Your task to perform on an android device: Search for logitech g502 on target, select the first entry, add it to the cart, then select checkout. Image 0: 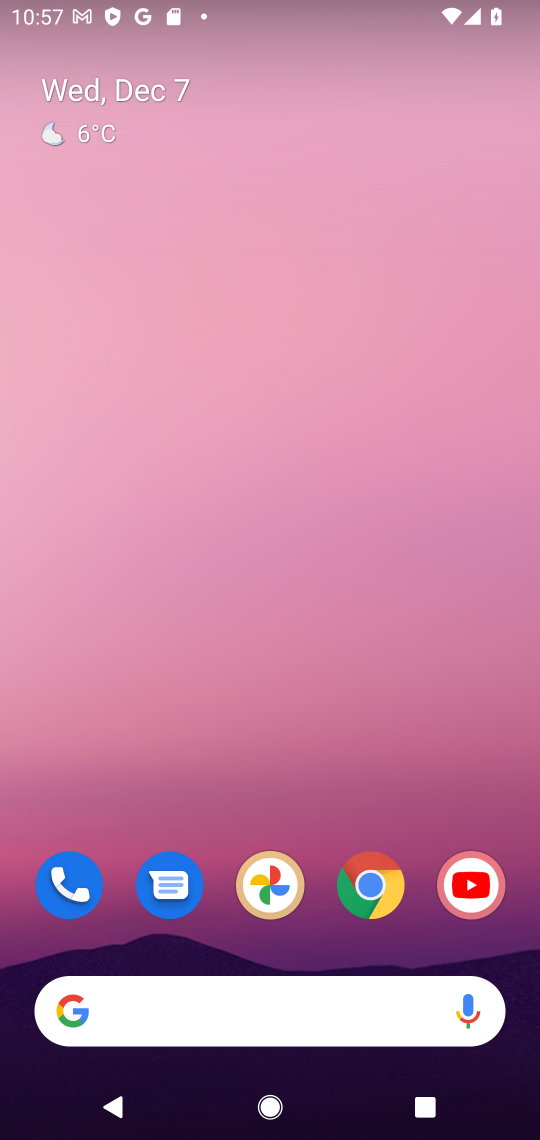
Step 0: click (370, 893)
Your task to perform on an android device: Search for logitech g502 on target, select the first entry, add it to the cart, then select checkout. Image 1: 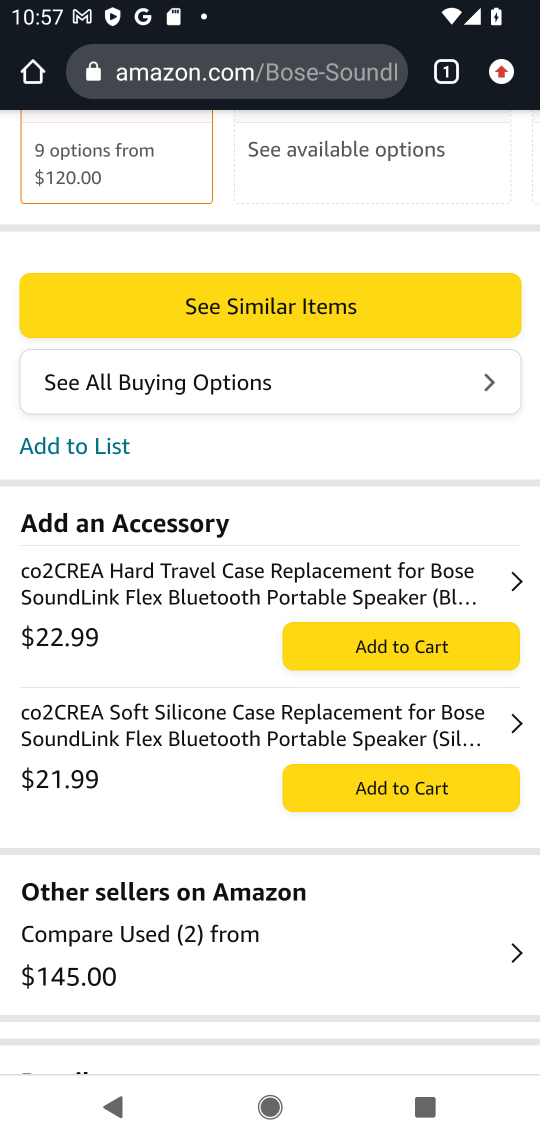
Step 1: click (243, 77)
Your task to perform on an android device: Search for logitech g502 on target, select the first entry, add it to the cart, then select checkout. Image 2: 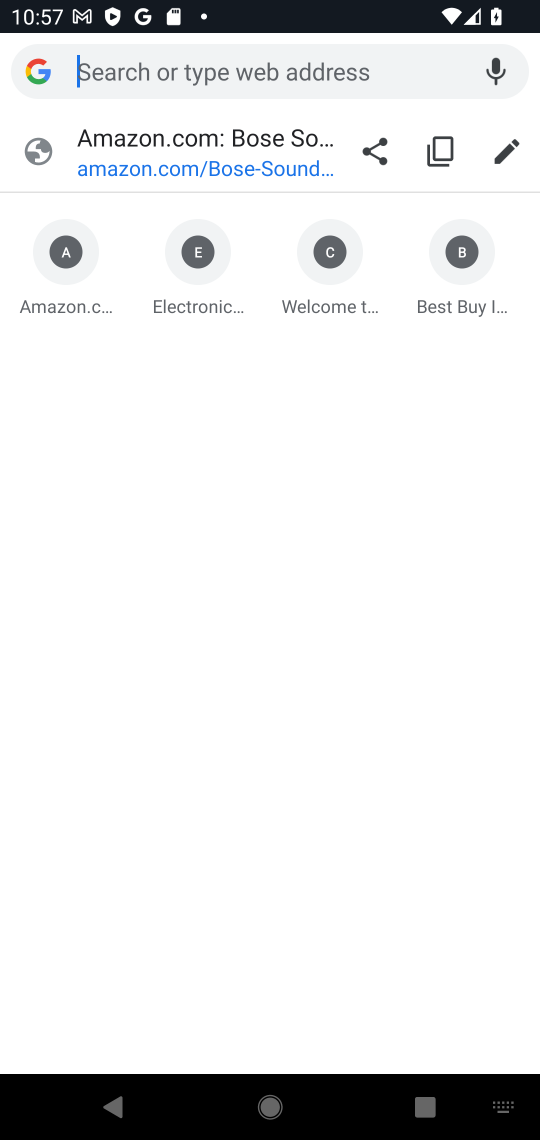
Step 2: click (294, 68)
Your task to perform on an android device: Search for logitech g502 on target, select the first entry, add it to the cart, then select checkout. Image 3: 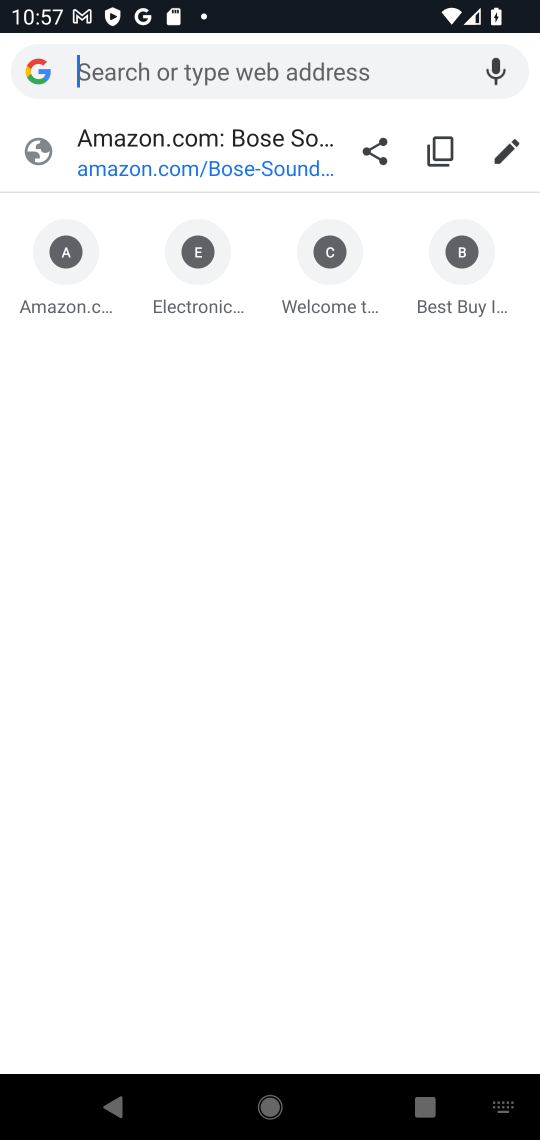
Step 3: type "target"
Your task to perform on an android device: Search for logitech g502 on target, select the first entry, add it to the cart, then select checkout. Image 4: 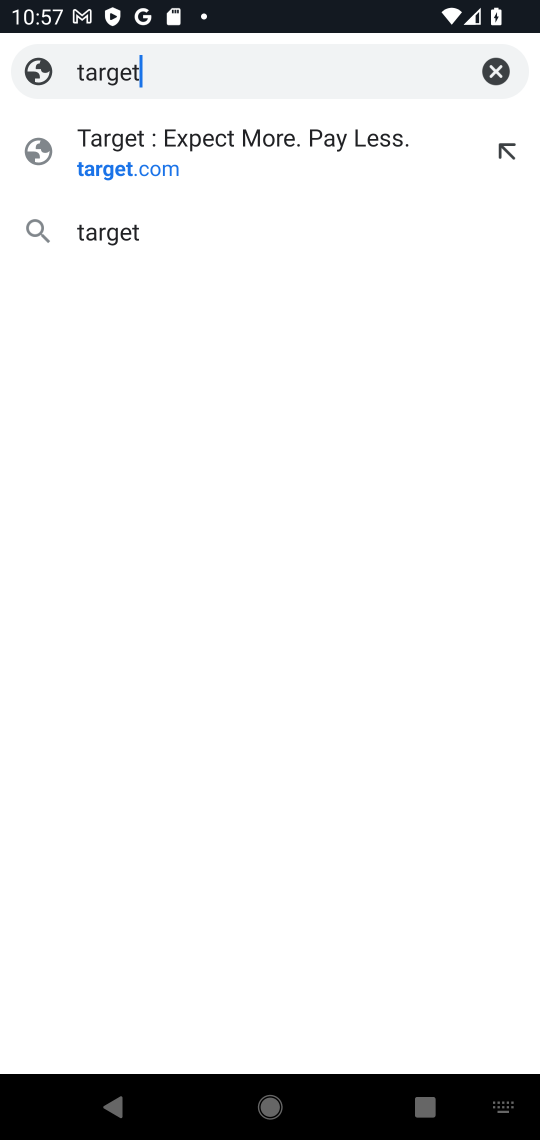
Step 4: click (154, 160)
Your task to perform on an android device: Search for logitech g502 on target, select the first entry, add it to the cart, then select checkout. Image 5: 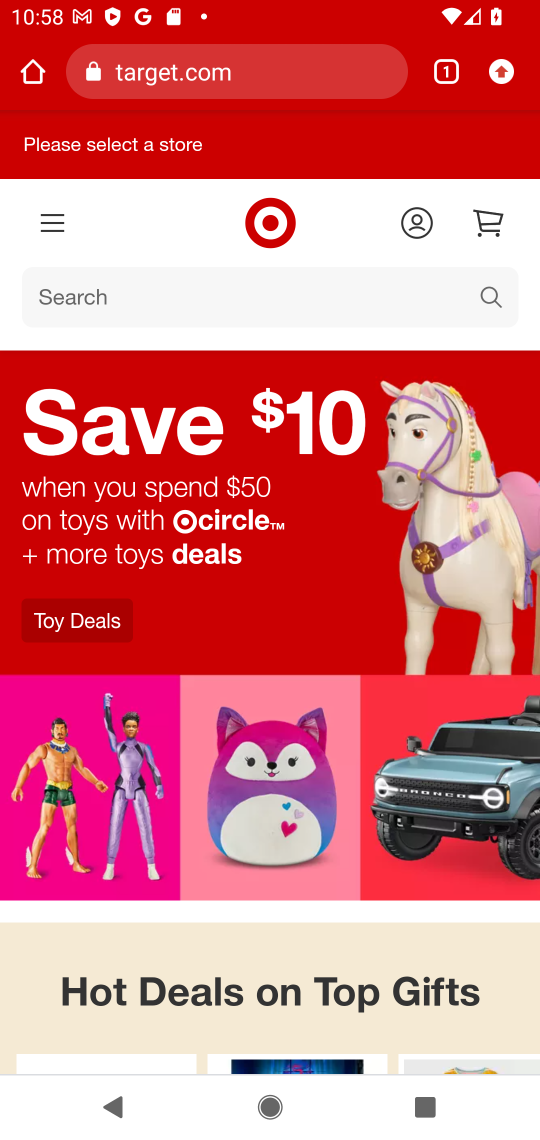
Step 5: click (484, 296)
Your task to perform on an android device: Search for logitech g502 on target, select the first entry, add it to the cart, then select checkout. Image 6: 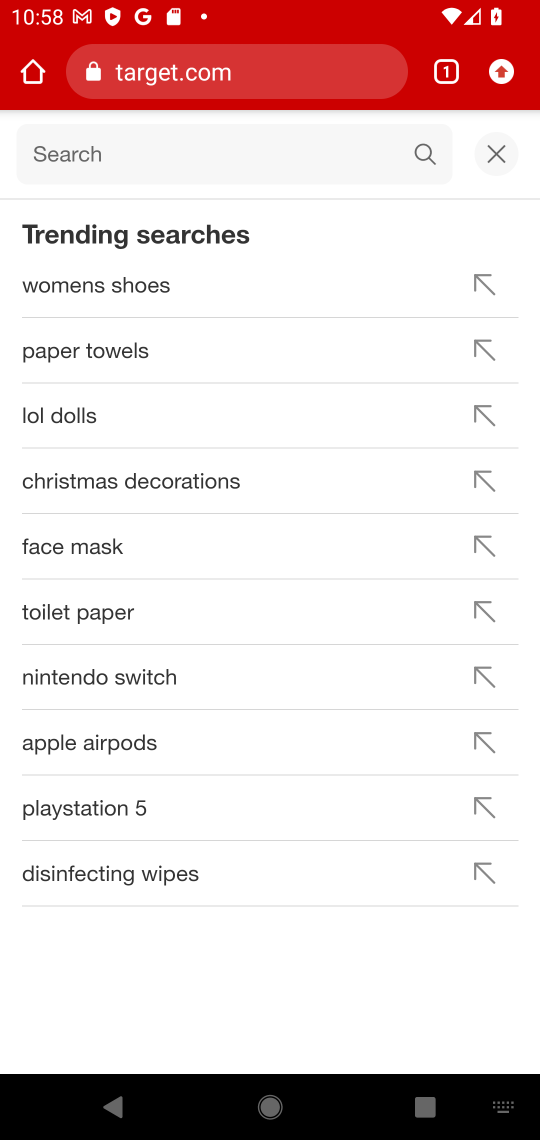
Step 6: type "LOGITECH G502"
Your task to perform on an android device: Search for logitech g502 on target, select the first entry, add it to the cart, then select checkout. Image 7: 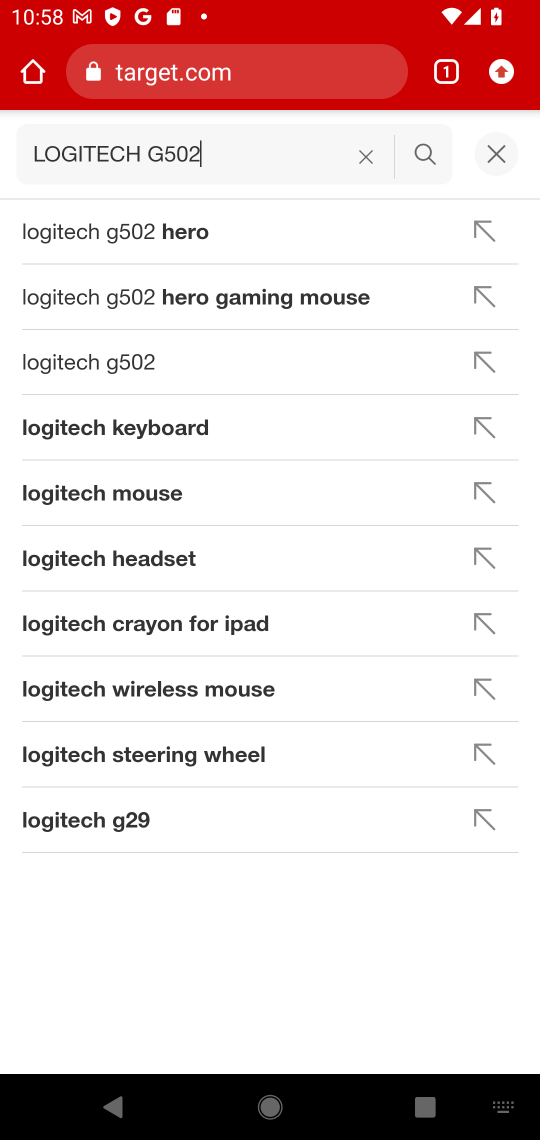
Step 7: click (106, 235)
Your task to perform on an android device: Search for logitech g502 on target, select the first entry, add it to the cart, then select checkout. Image 8: 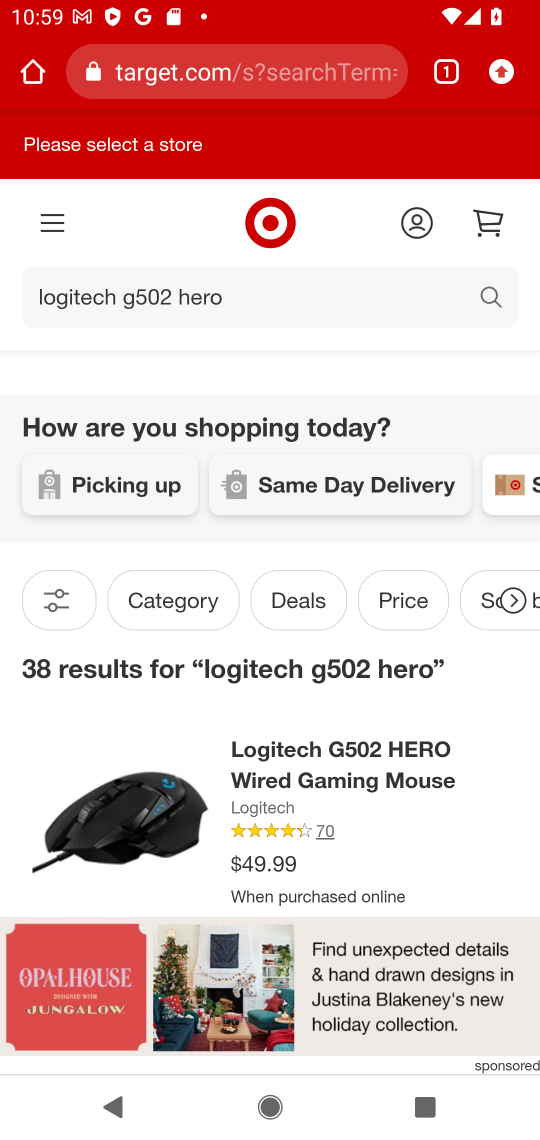
Step 8: click (133, 827)
Your task to perform on an android device: Search for logitech g502 on target, select the first entry, add it to the cart, then select checkout. Image 9: 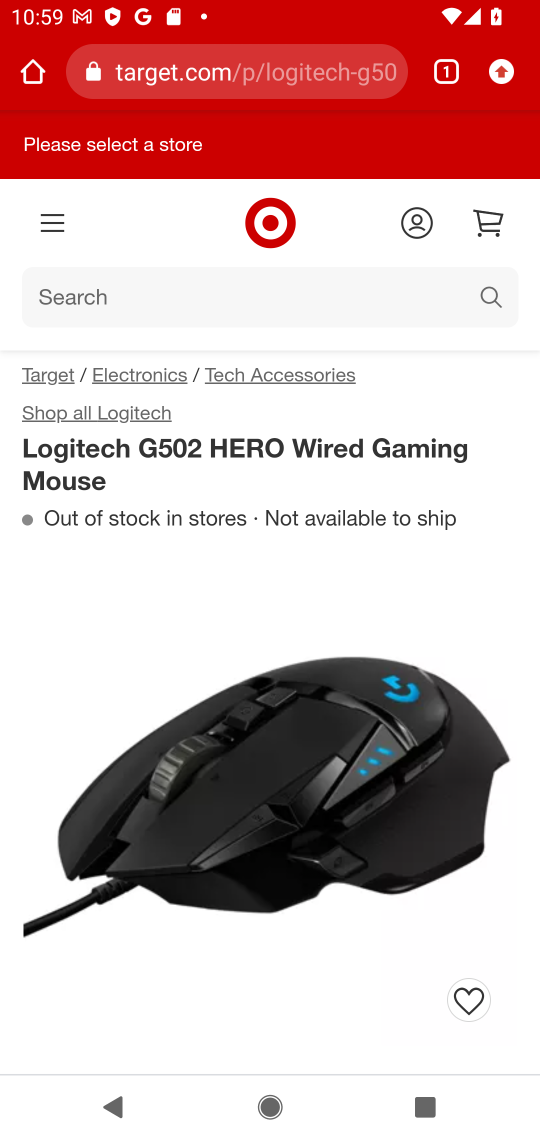
Step 9: drag from (318, 948) to (309, 213)
Your task to perform on an android device: Search for logitech g502 on target, select the first entry, add it to the cart, then select checkout. Image 10: 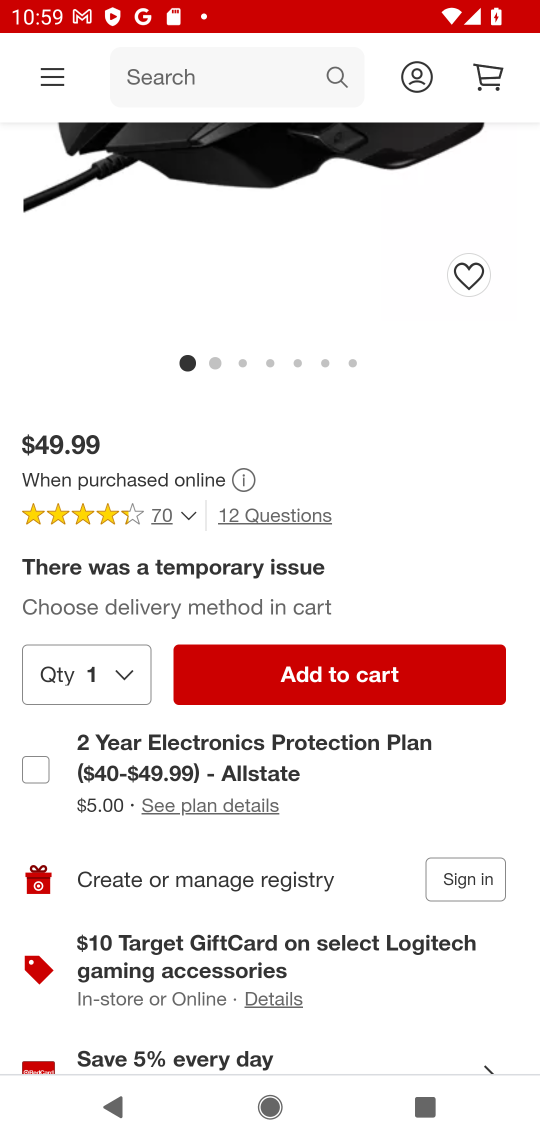
Step 10: click (345, 674)
Your task to perform on an android device: Search for logitech g502 on target, select the first entry, add it to the cart, then select checkout. Image 11: 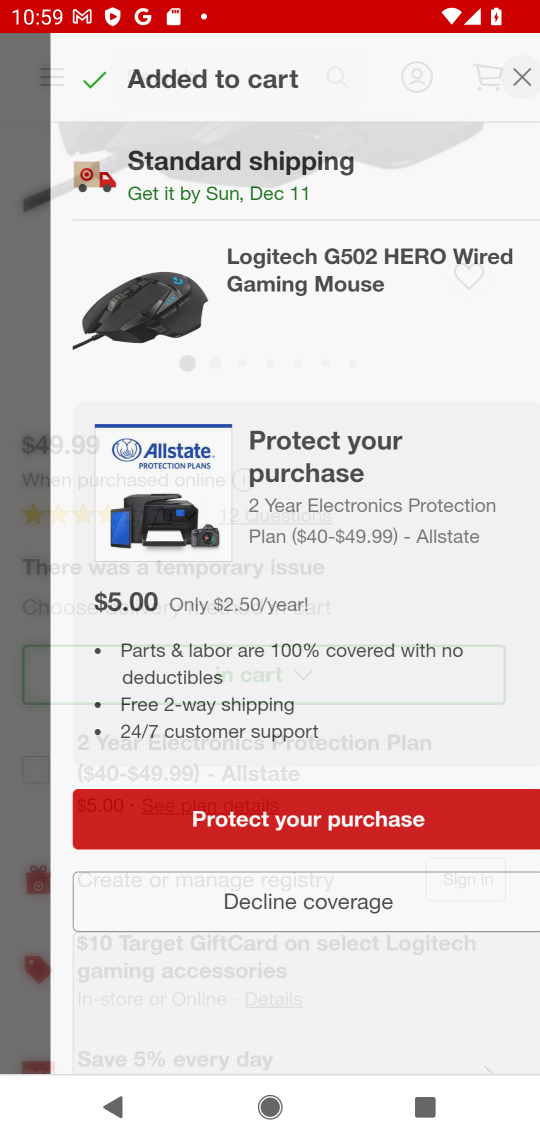
Step 11: task complete